Your task to perform on an android device: What's the weather? Image 0: 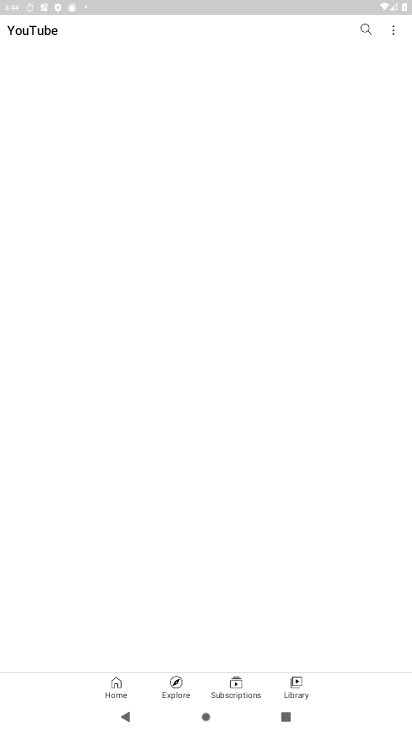
Step 0: press home button
Your task to perform on an android device: What's the weather? Image 1: 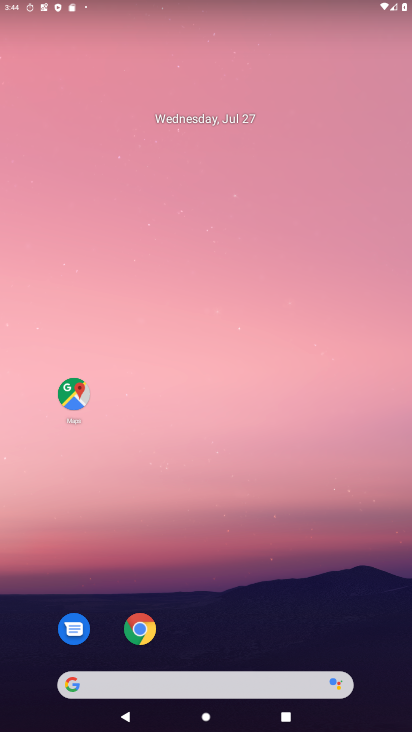
Step 1: drag from (319, 616) to (267, 78)
Your task to perform on an android device: What's the weather? Image 2: 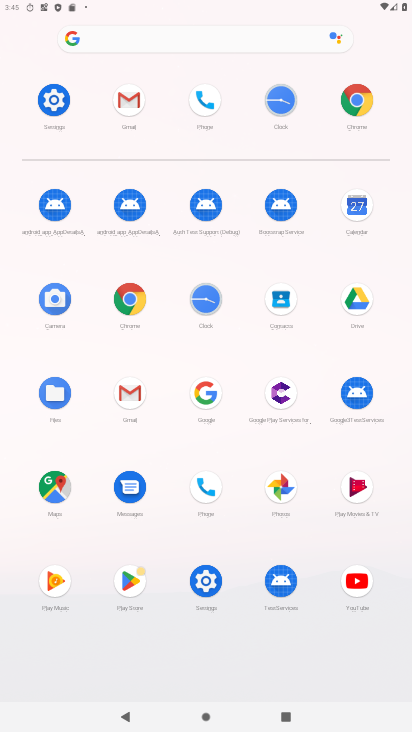
Step 2: click (351, 97)
Your task to perform on an android device: What's the weather? Image 3: 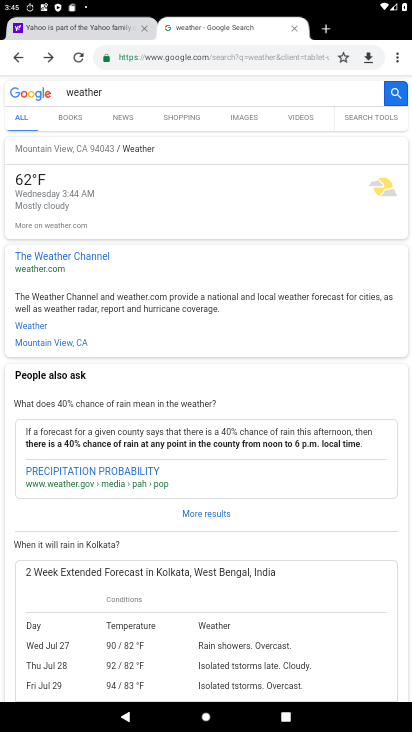
Step 3: task complete